Your task to perform on an android device: Open internet settings Image 0: 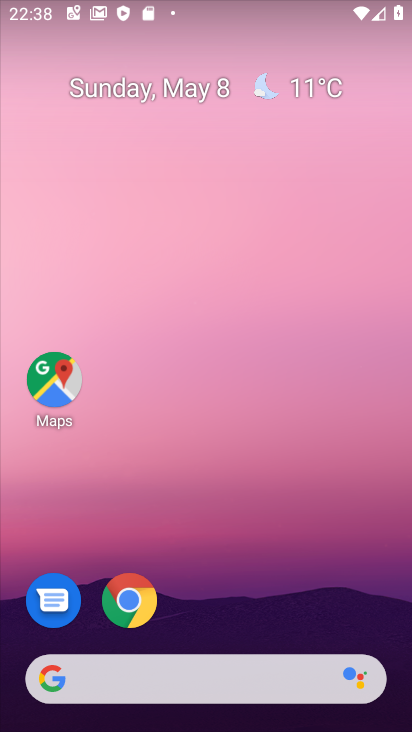
Step 0: drag from (225, 613) to (269, 6)
Your task to perform on an android device: Open internet settings Image 1: 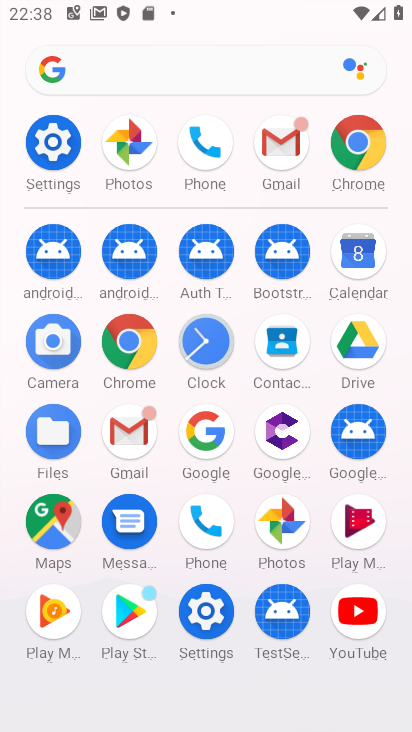
Step 1: click (45, 166)
Your task to perform on an android device: Open internet settings Image 2: 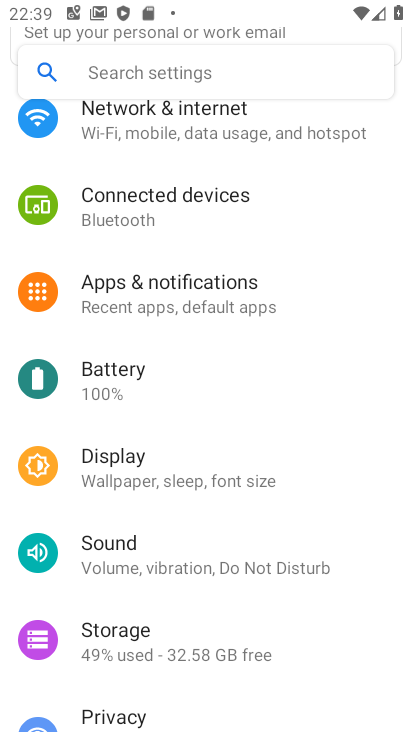
Step 2: click (206, 143)
Your task to perform on an android device: Open internet settings Image 3: 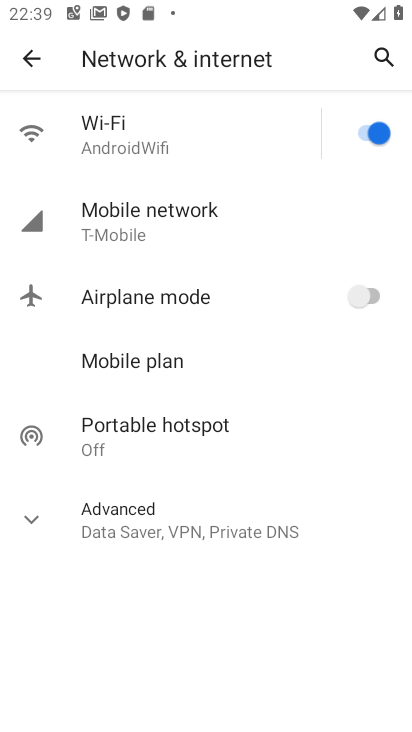
Step 3: click (216, 224)
Your task to perform on an android device: Open internet settings Image 4: 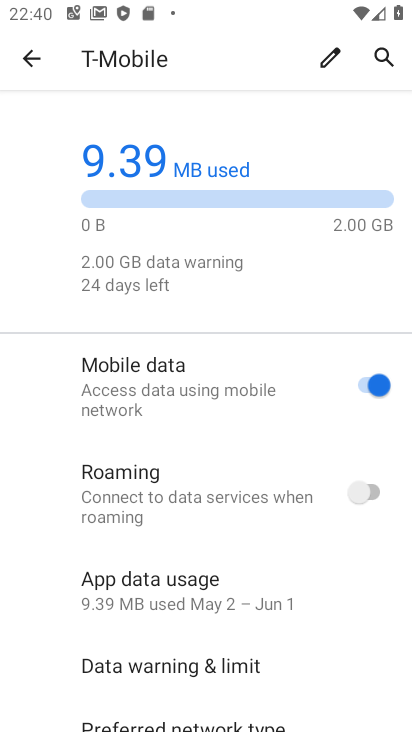
Step 4: task complete